Your task to perform on an android device: turn vacation reply on in the gmail app Image 0: 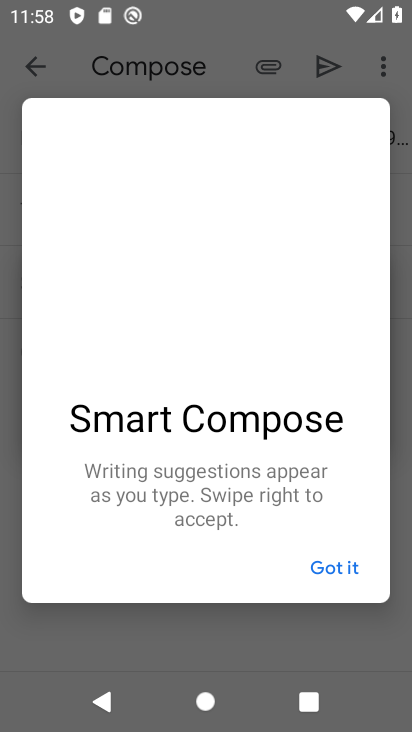
Step 0: drag from (203, 609) to (196, 422)
Your task to perform on an android device: turn vacation reply on in the gmail app Image 1: 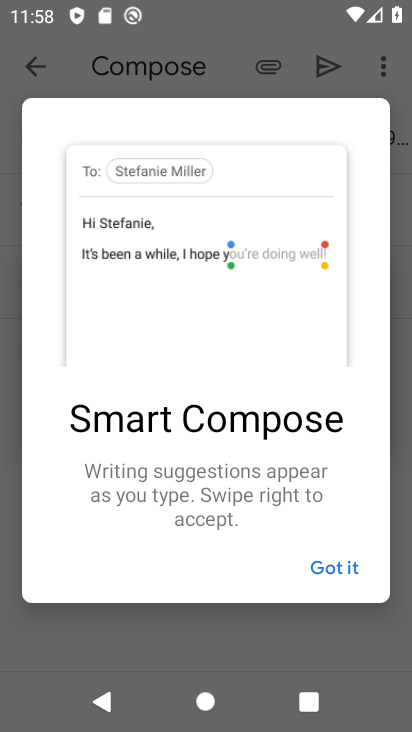
Step 1: press home button
Your task to perform on an android device: turn vacation reply on in the gmail app Image 2: 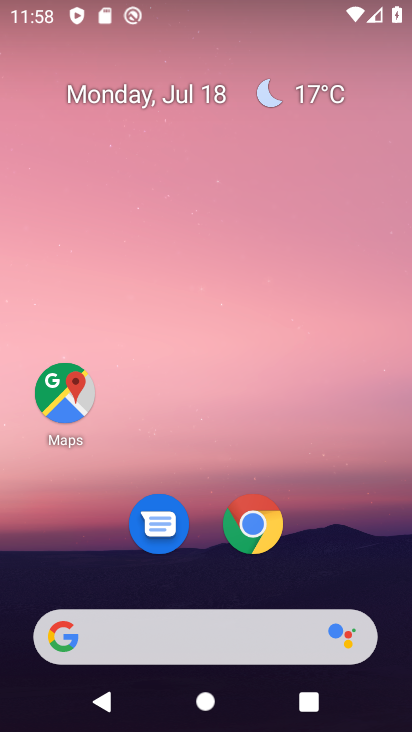
Step 2: drag from (181, 588) to (225, 8)
Your task to perform on an android device: turn vacation reply on in the gmail app Image 3: 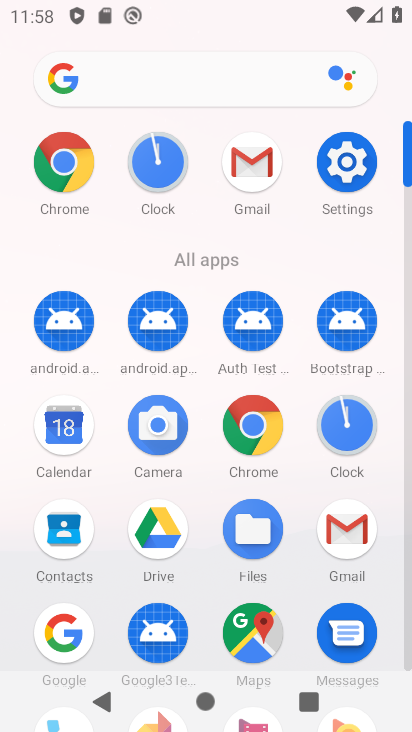
Step 3: click (338, 523)
Your task to perform on an android device: turn vacation reply on in the gmail app Image 4: 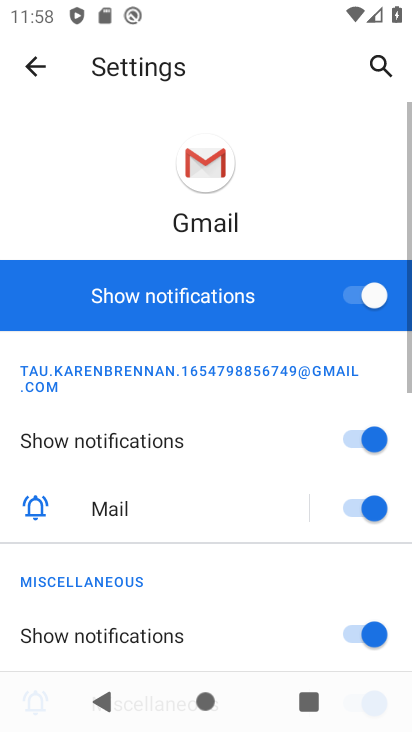
Step 4: click (37, 69)
Your task to perform on an android device: turn vacation reply on in the gmail app Image 5: 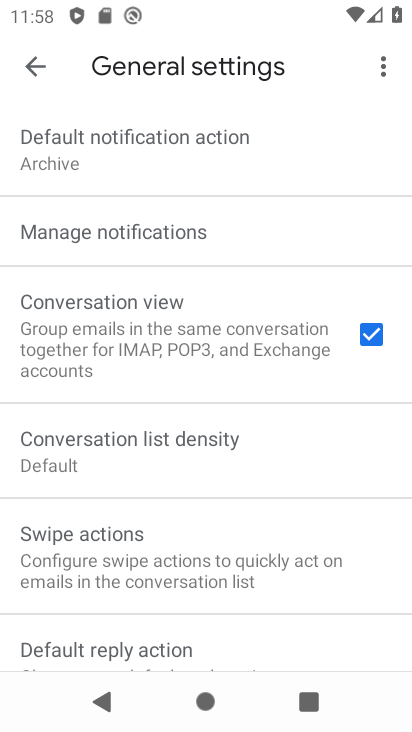
Step 5: click (37, 68)
Your task to perform on an android device: turn vacation reply on in the gmail app Image 6: 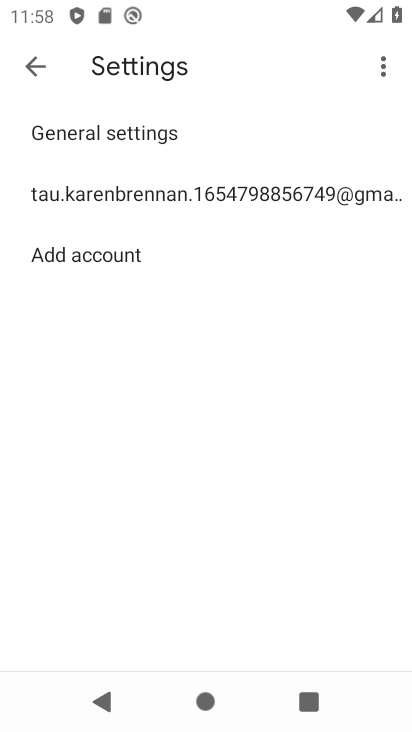
Step 6: click (97, 192)
Your task to perform on an android device: turn vacation reply on in the gmail app Image 7: 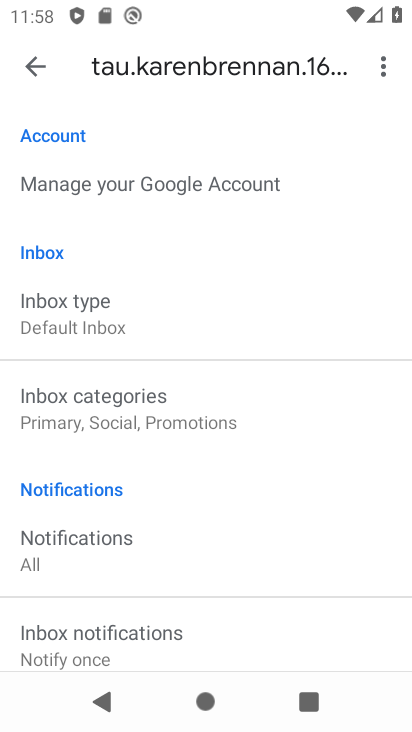
Step 7: drag from (139, 515) to (124, 184)
Your task to perform on an android device: turn vacation reply on in the gmail app Image 8: 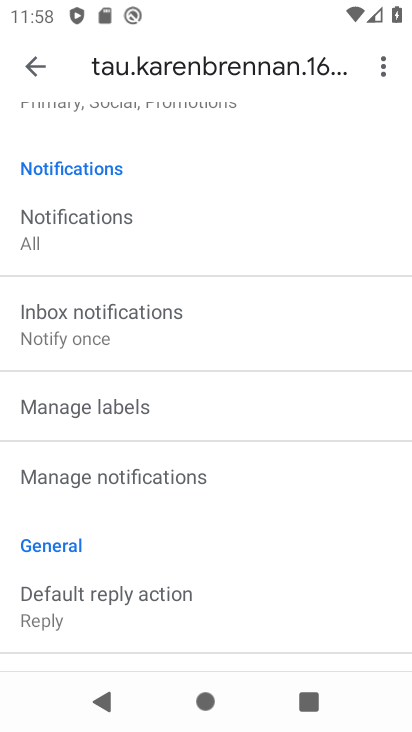
Step 8: drag from (195, 517) to (136, 141)
Your task to perform on an android device: turn vacation reply on in the gmail app Image 9: 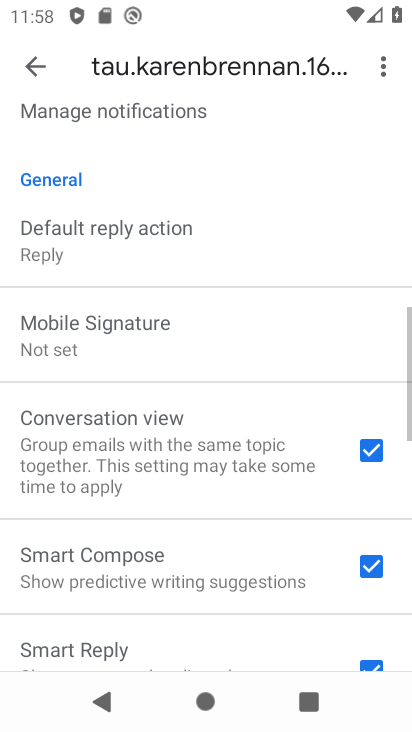
Step 9: drag from (188, 538) to (179, 150)
Your task to perform on an android device: turn vacation reply on in the gmail app Image 10: 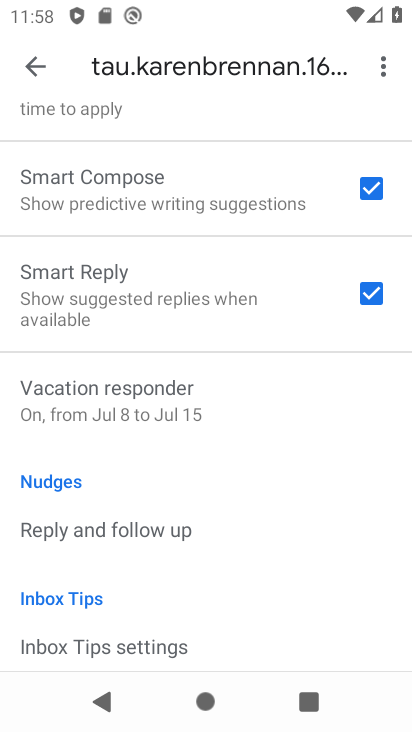
Step 10: click (145, 400)
Your task to perform on an android device: turn vacation reply on in the gmail app Image 11: 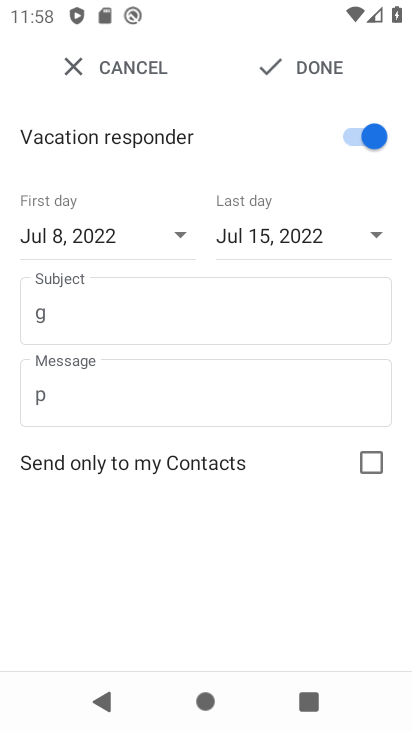
Step 11: click (271, 64)
Your task to perform on an android device: turn vacation reply on in the gmail app Image 12: 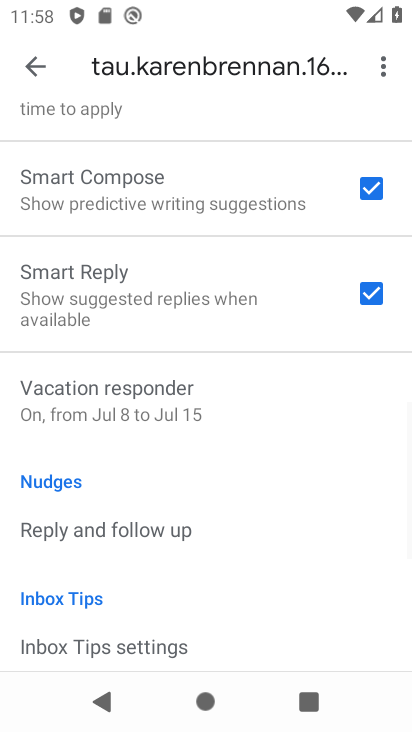
Step 12: task complete